Your task to perform on an android device: Open Google Chrome and open the bookmarks view Image 0: 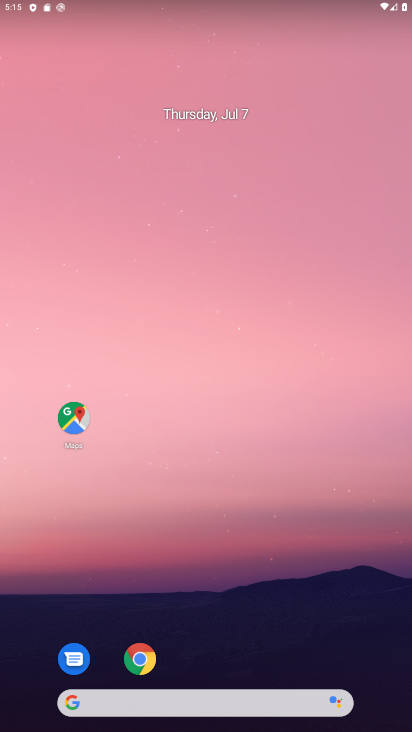
Step 0: drag from (200, 566) to (274, 132)
Your task to perform on an android device: Open Google Chrome and open the bookmarks view Image 1: 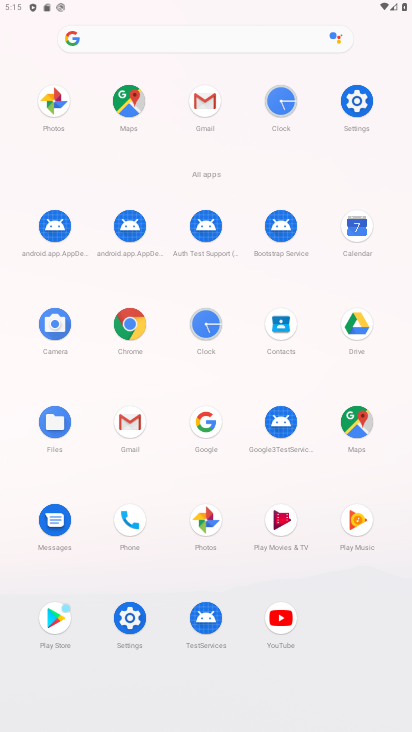
Step 1: click (130, 347)
Your task to perform on an android device: Open Google Chrome and open the bookmarks view Image 2: 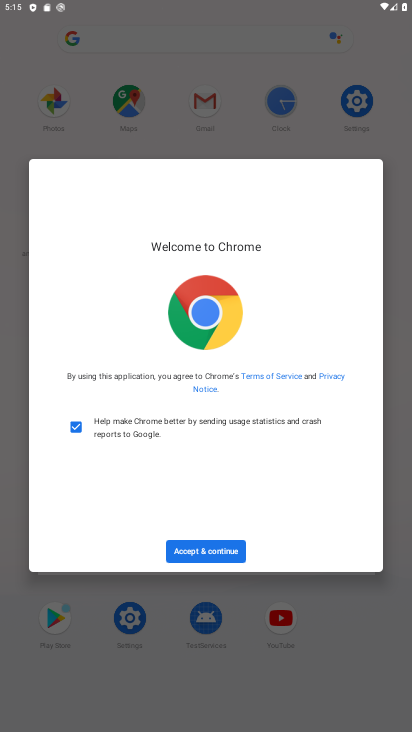
Step 2: click (214, 550)
Your task to perform on an android device: Open Google Chrome and open the bookmarks view Image 3: 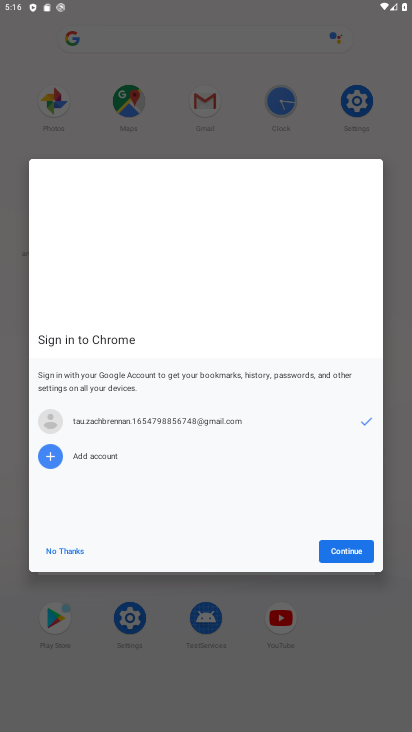
Step 3: click (334, 554)
Your task to perform on an android device: Open Google Chrome and open the bookmarks view Image 4: 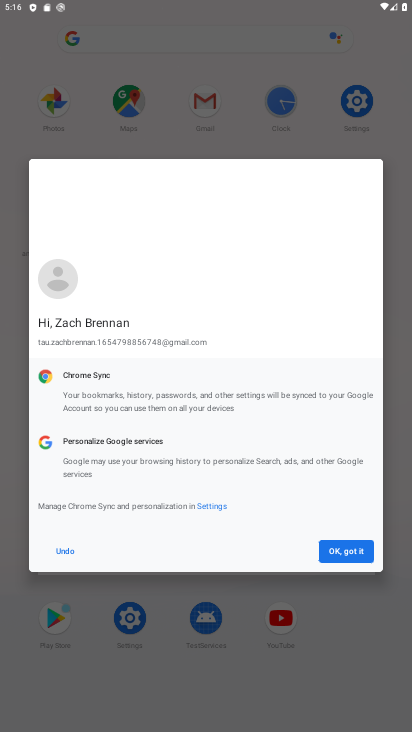
Step 4: click (334, 554)
Your task to perform on an android device: Open Google Chrome and open the bookmarks view Image 5: 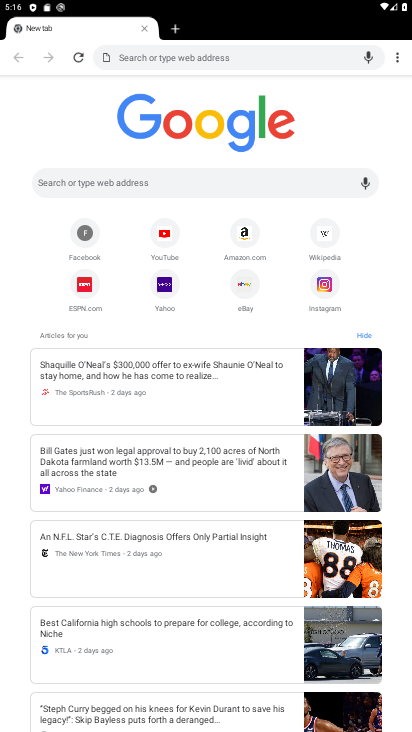
Step 5: click (396, 59)
Your task to perform on an android device: Open Google Chrome and open the bookmarks view Image 6: 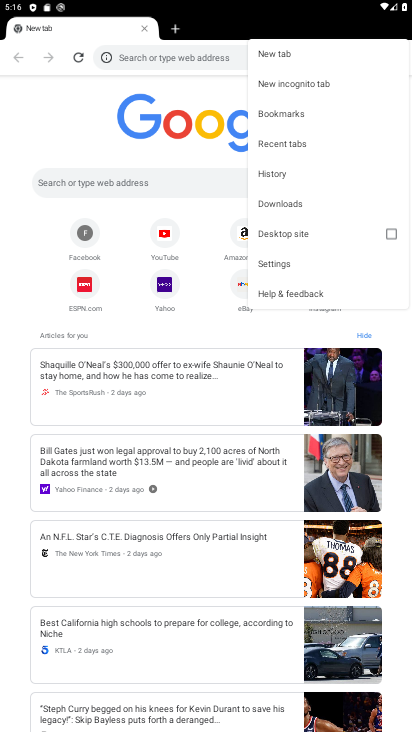
Step 6: click (297, 115)
Your task to perform on an android device: Open Google Chrome and open the bookmarks view Image 7: 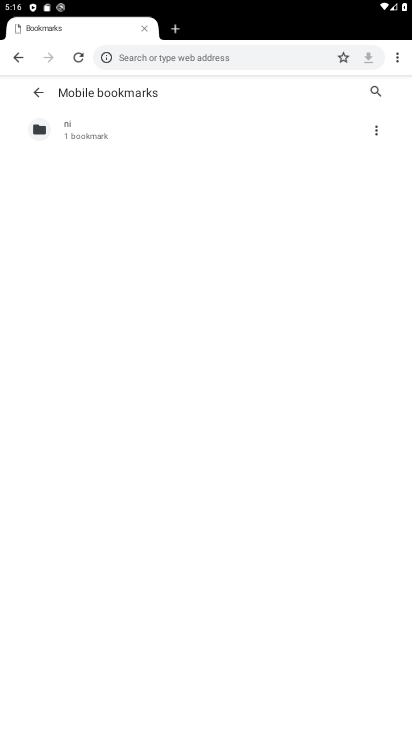
Step 7: task complete